Your task to perform on an android device: Open Youtube and go to "Your channel" Image 0: 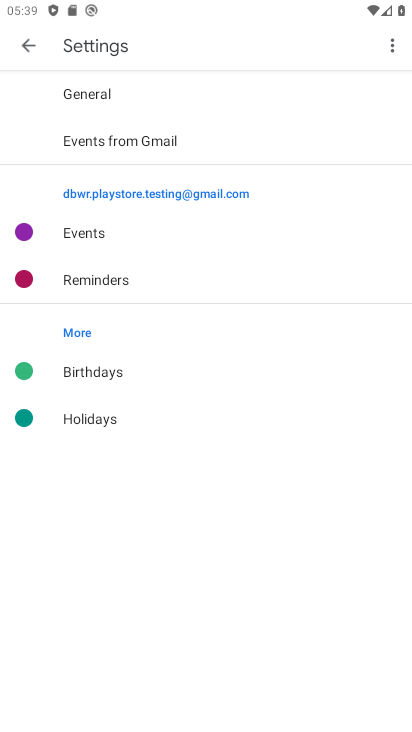
Step 0: press home button
Your task to perform on an android device: Open Youtube and go to "Your channel" Image 1: 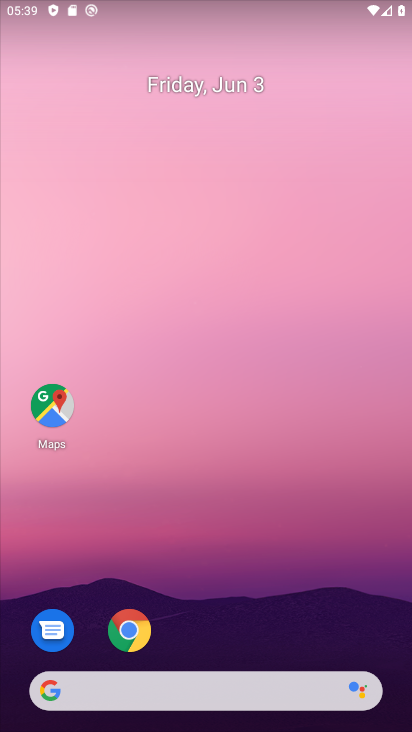
Step 1: drag from (225, 630) to (186, 65)
Your task to perform on an android device: Open Youtube and go to "Your channel" Image 2: 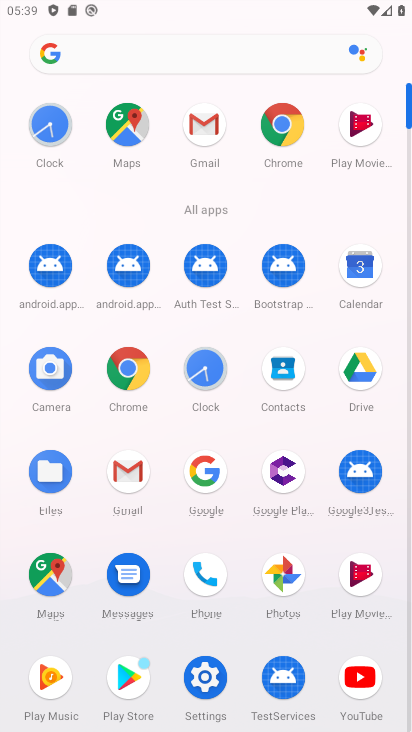
Step 2: click (367, 678)
Your task to perform on an android device: Open Youtube and go to "Your channel" Image 3: 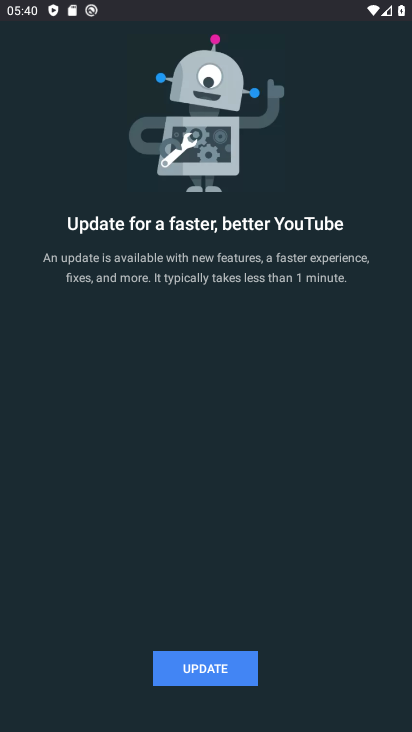
Step 3: click (206, 673)
Your task to perform on an android device: Open Youtube and go to "Your channel" Image 4: 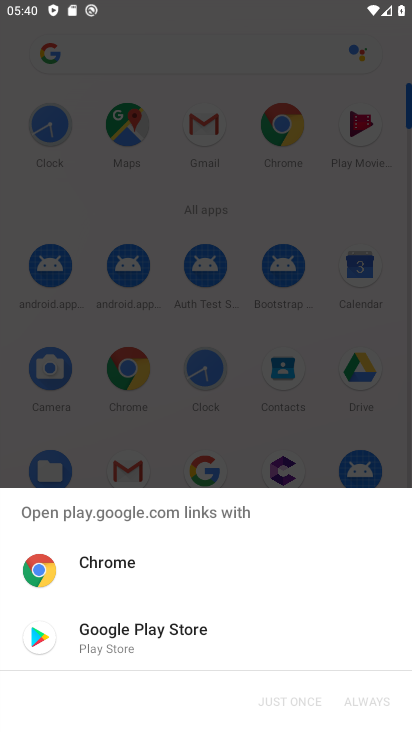
Step 4: click (186, 639)
Your task to perform on an android device: Open Youtube and go to "Your channel" Image 5: 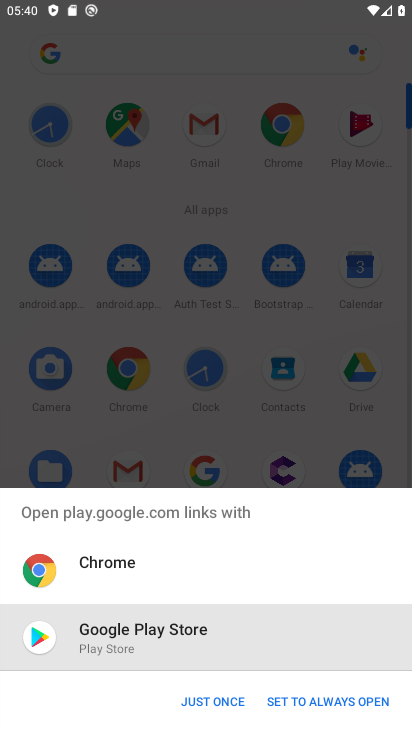
Step 5: click (242, 701)
Your task to perform on an android device: Open Youtube and go to "Your channel" Image 6: 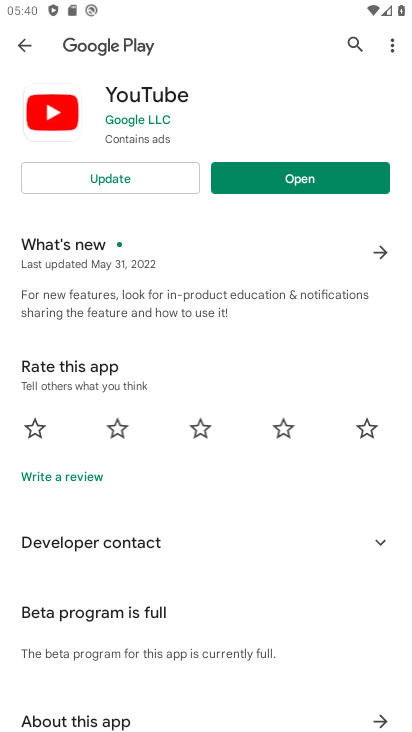
Step 6: click (169, 185)
Your task to perform on an android device: Open Youtube and go to "Your channel" Image 7: 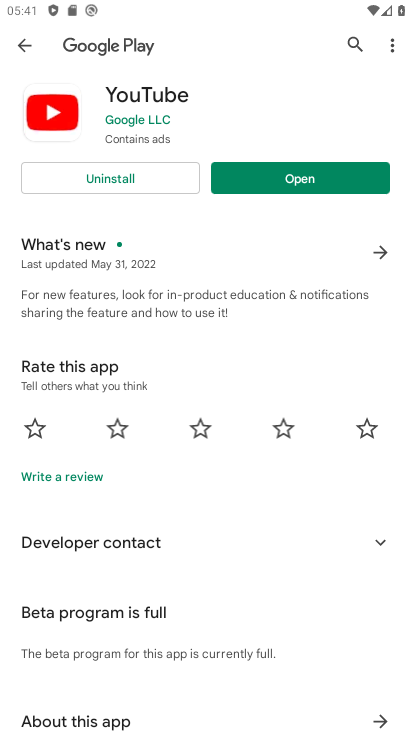
Step 7: click (297, 182)
Your task to perform on an android device: Open Youtube and go to "Your channel" Image 8: 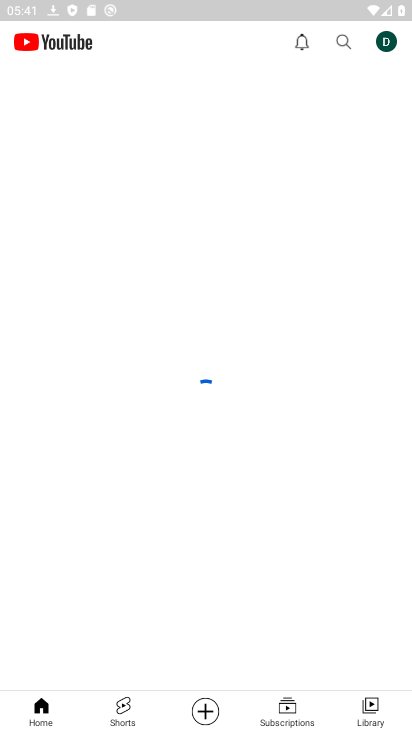
Step 8: click (341, 36)
Your task to perform on an android device: Open Youtube and go to "Your channel" Image 9: 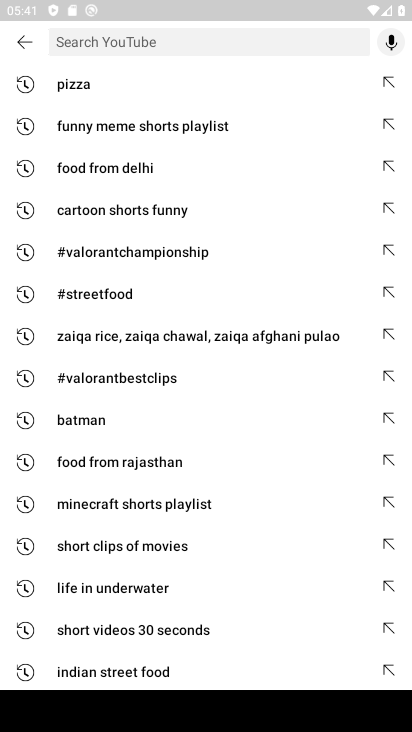
Step 9: type "your channel"
Your task to perform on an android device: Open Youtube and go to "Your channel" Image 10: 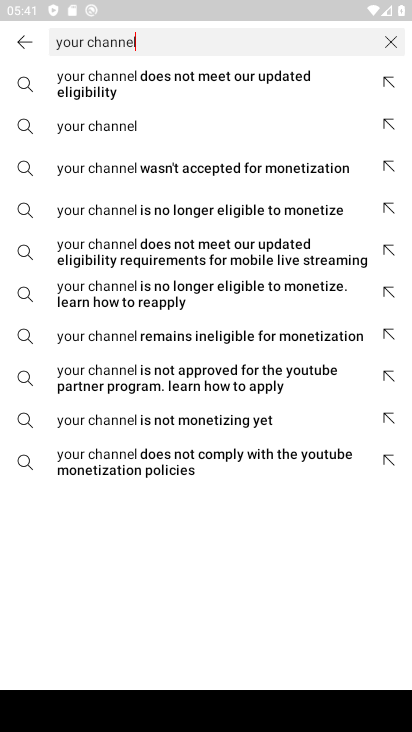
Step 10: click (149, 134)
Your task to perform on an android device: Open Youtube and go to "Your channel" Image 11: 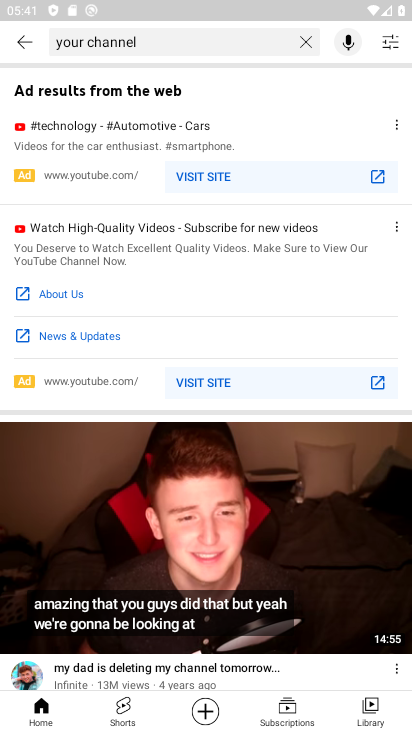
Step 11: task complete